Your task to perform on an android device: toggle pop-ups in chrome Image 0: 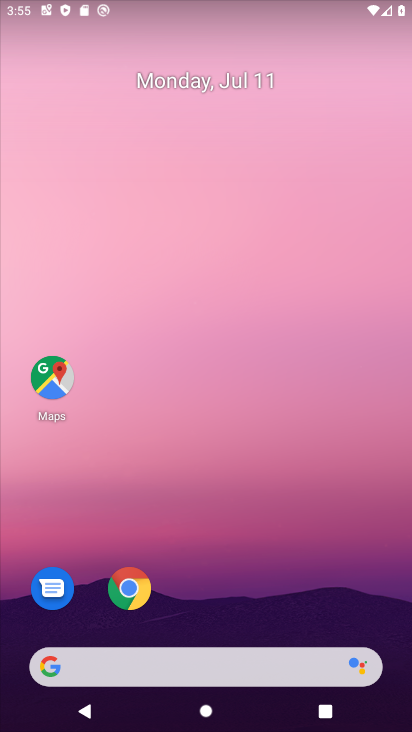
Step 0: press home button
Your task to perform on an android device: toggle pop-ups in chrome Image 1: 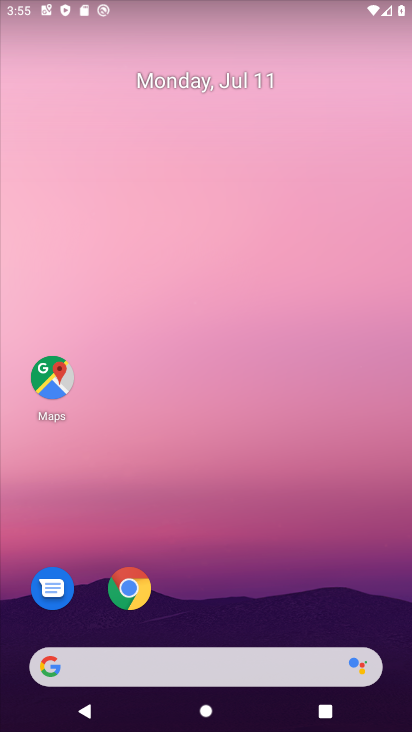
Step 1: drag from (305, 550) to (320, 75)
Your task to perform on an android device: toggle pop-ups in chrome Image 2: 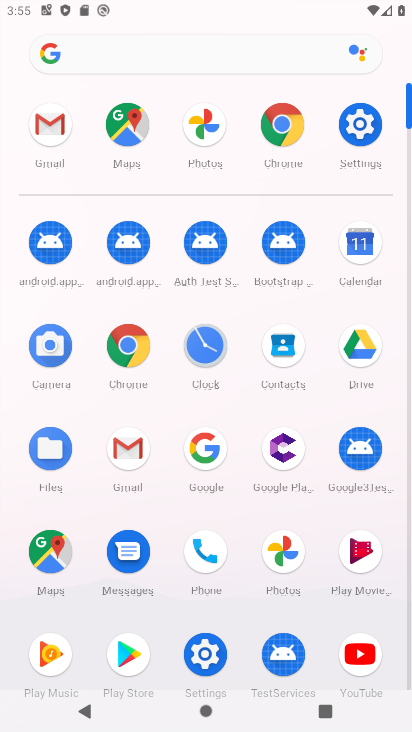
Step 2: click (282, 132)
Your task to perform on an android device: toggle pop-ups in chrome Image 3: 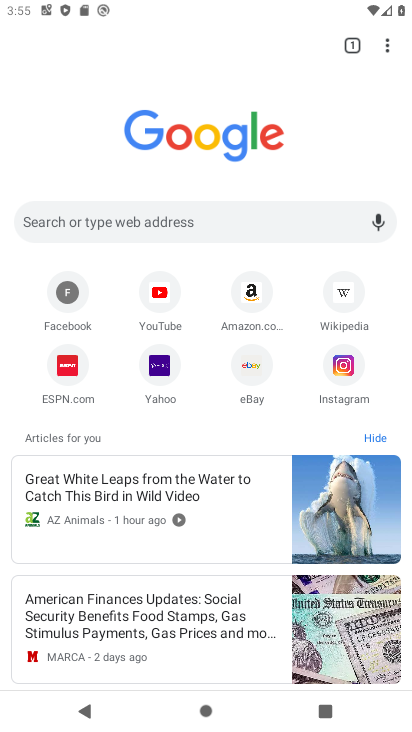
Step 3: click (385, 42)
Your task to perform on an android device: toggle pop-ups in chrome Image 4: 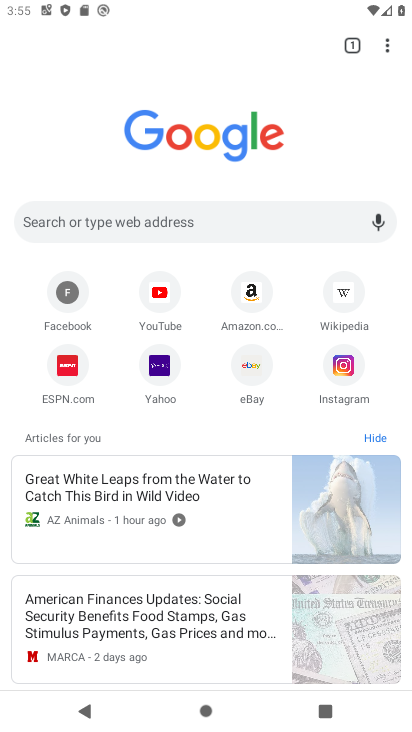
Step 4: drag from (382, 46) to (244, 429)
Your task to perform on an android device: toggle pop-ups in chrome Image 5: 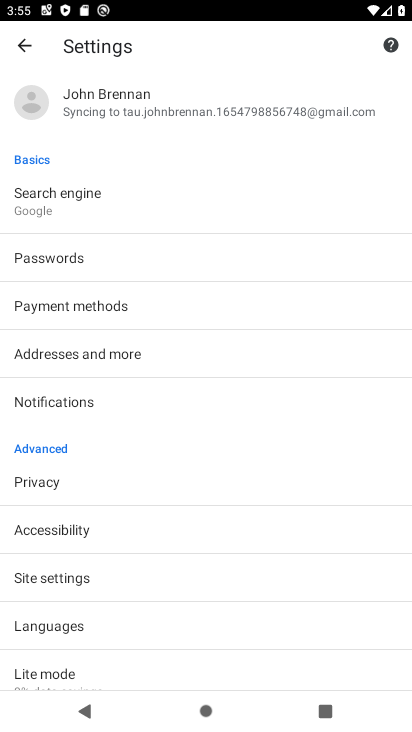
Step 5: click (44, 582)
Your task to perform on an android device: toggle pop-ups in chrome Image 6: 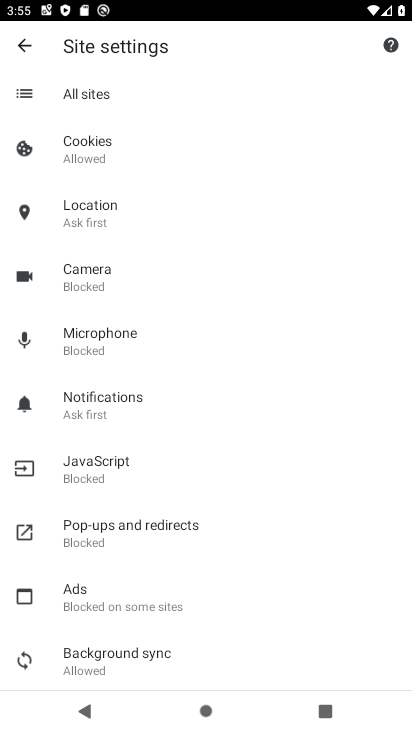
Step 6: drag from (244, 634) to (234, 221)
Your task to perform on an android device: toggle pop-ups in chrome Image 7: 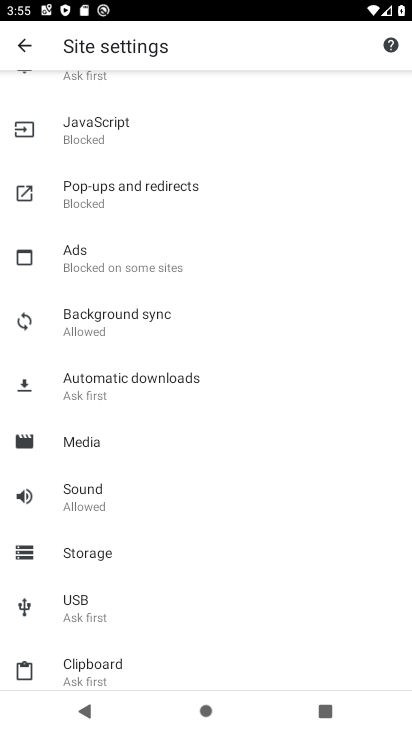
Step 7: click (104, 182)
Your task to perform on an android device: toggle pop-ups in chrome Image 8: 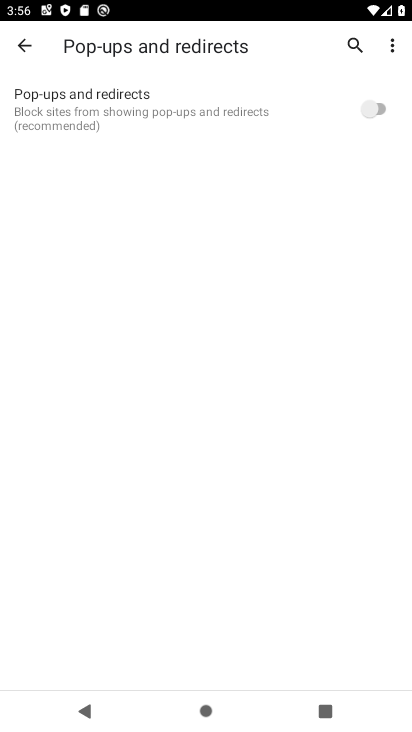
Step 8: click (379, 106)
Your task to perform on an android device: toggle pop-ups in chrome Image 9: 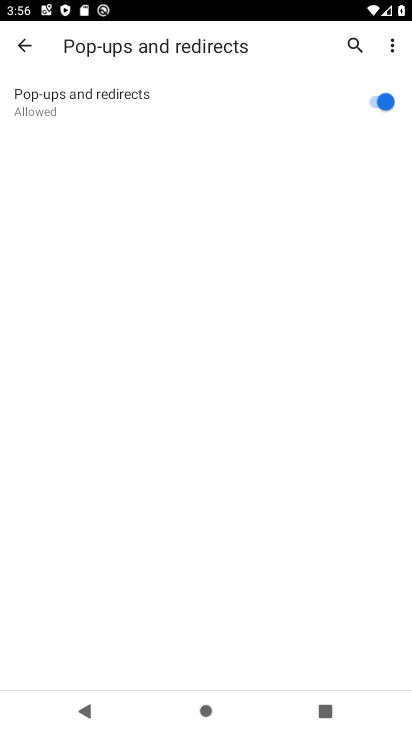
Step 9: task complete